Your task to perform on an android device: Open notification settings Image 0: 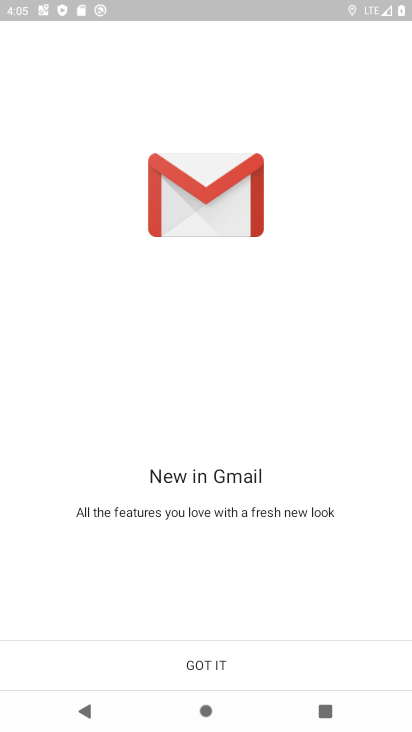
Step 0: press back button
Your task to perform on an android device: Open notification settings Image 1: 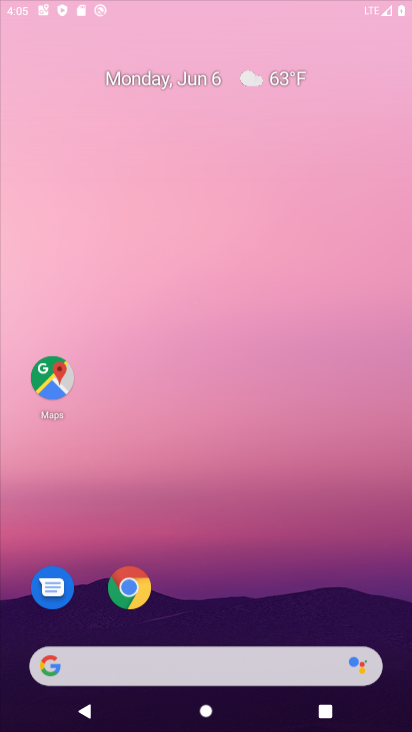
Step 1: click (205, 666)
Your task to perform on an android device: Open notification settings Image 2: 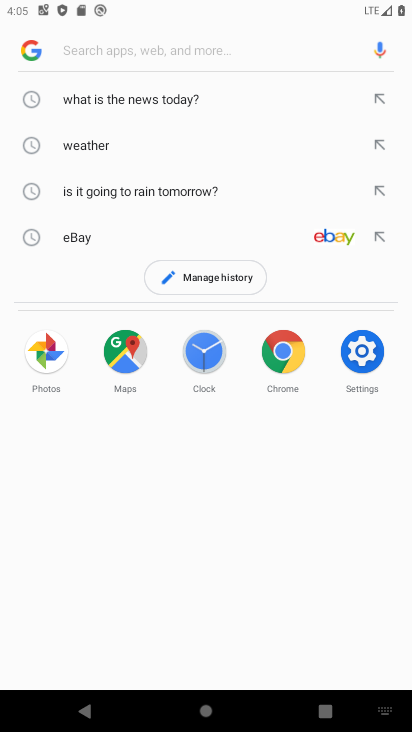
Step 2: press back button
Your task to perform on an android device: Open notification settings Image 3: 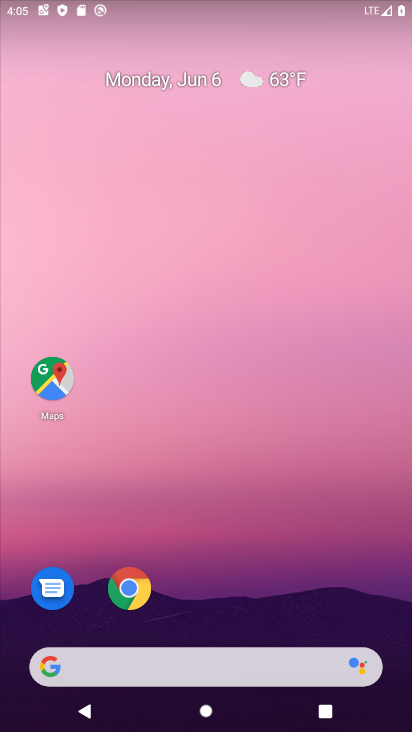
Step 3: drag from (243, 684) to (212, 229)
Your task to perform on an android device: Open notification settings Image 4: 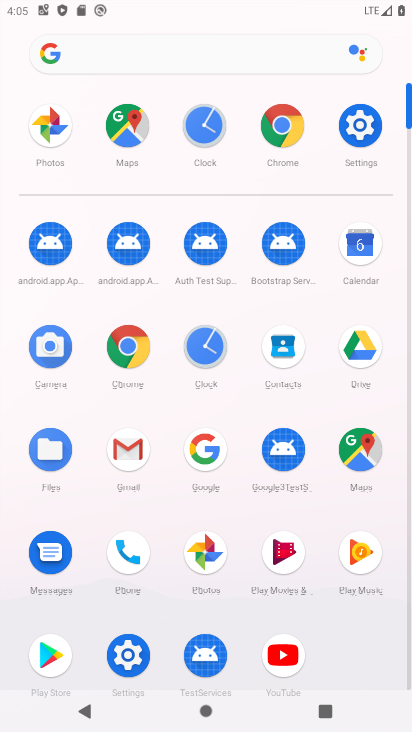
Step 4: click (365, 111)
Your task to perform on an android device: Open notification settings Image 5: 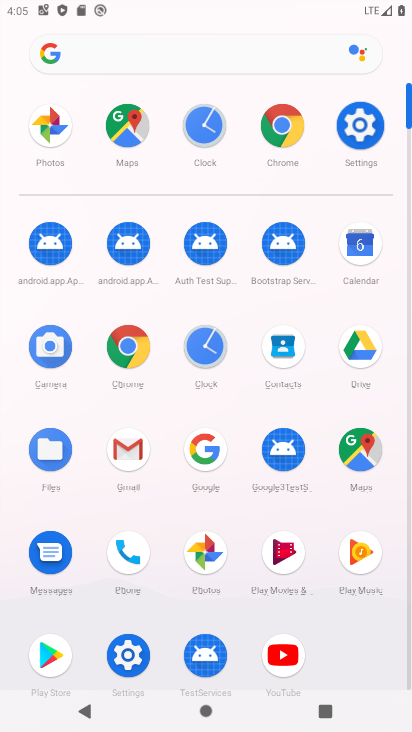
Step 5: click (365, 111)
Your task to perform on an android device: Open notification settings Image 6: 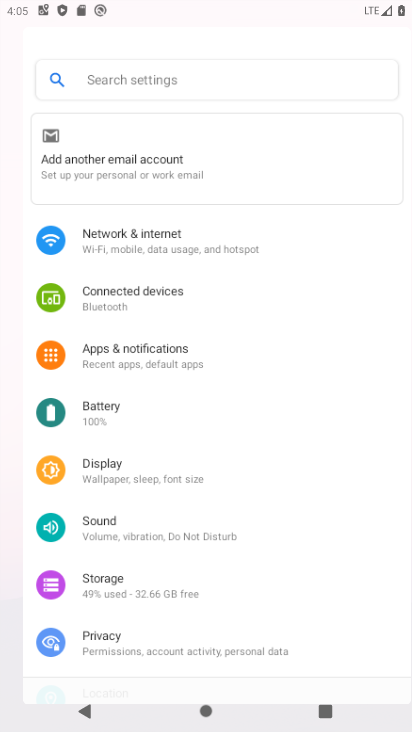
Step 6: click (363, 114)
Your task to perform on an android device: Open notification settings Image 7: 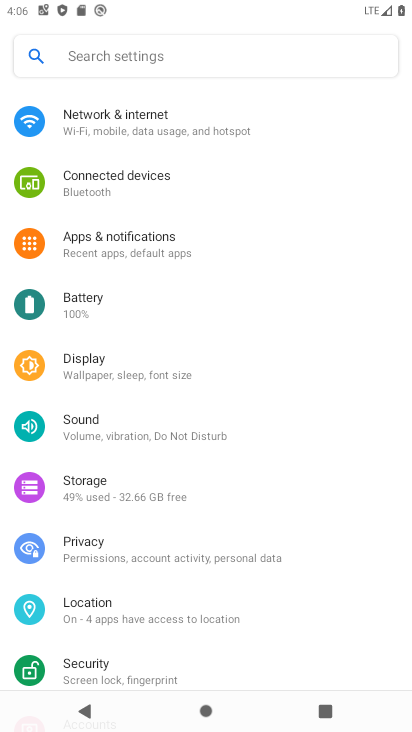
Step 7: click (361, 117)
Your task to perform on an android device: Open notification settings Image 8: 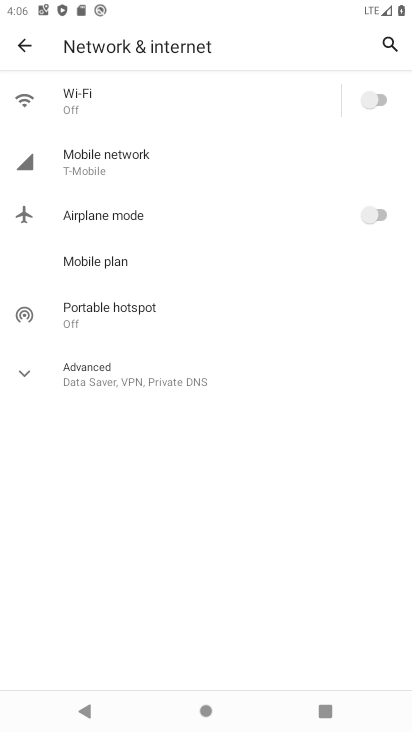
Step 8: click (19, 43)
Your task to perform on an android device: Open notification settings Image 9: 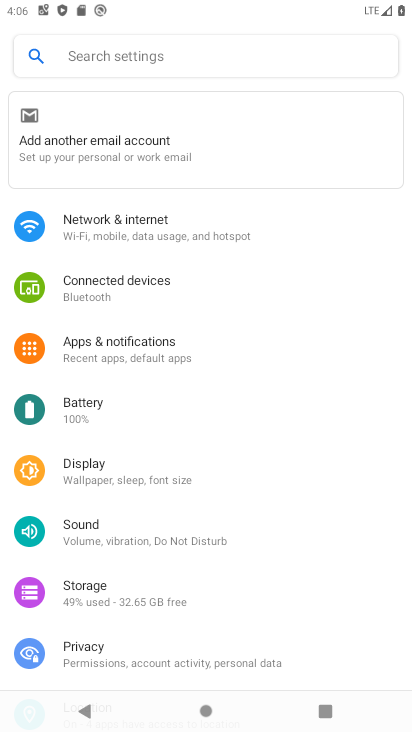
Step 9: click (121, 357)
Your task to perform on an android device: Open notification settings Image 10: 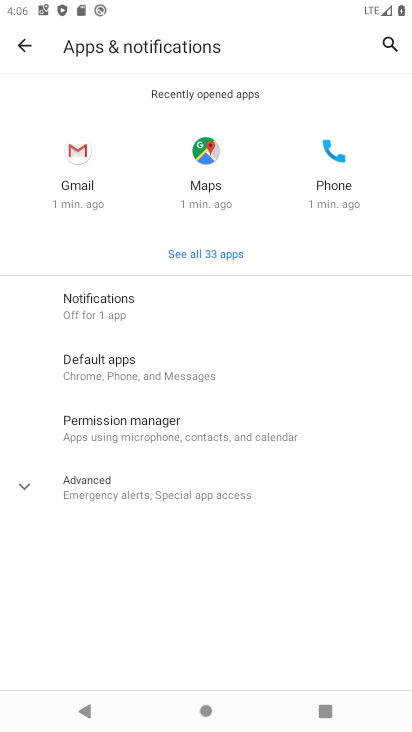
Step 10: click (105, 317)
Your task to perform on an android device: Open notification settings Image 11: 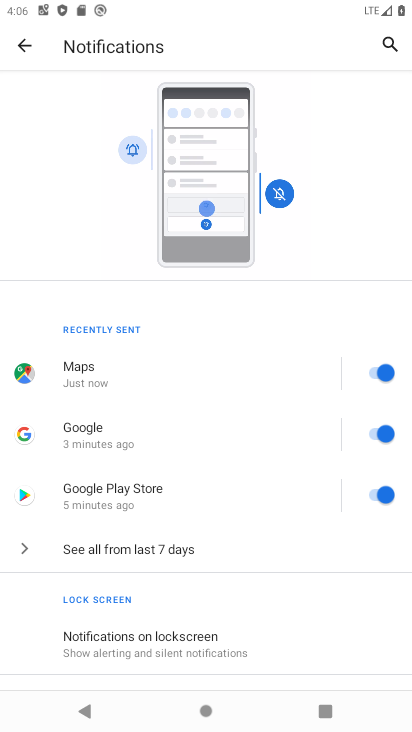
Step 11: task complete